Your task to perform on an android device: Do I have any events today? Image 0: 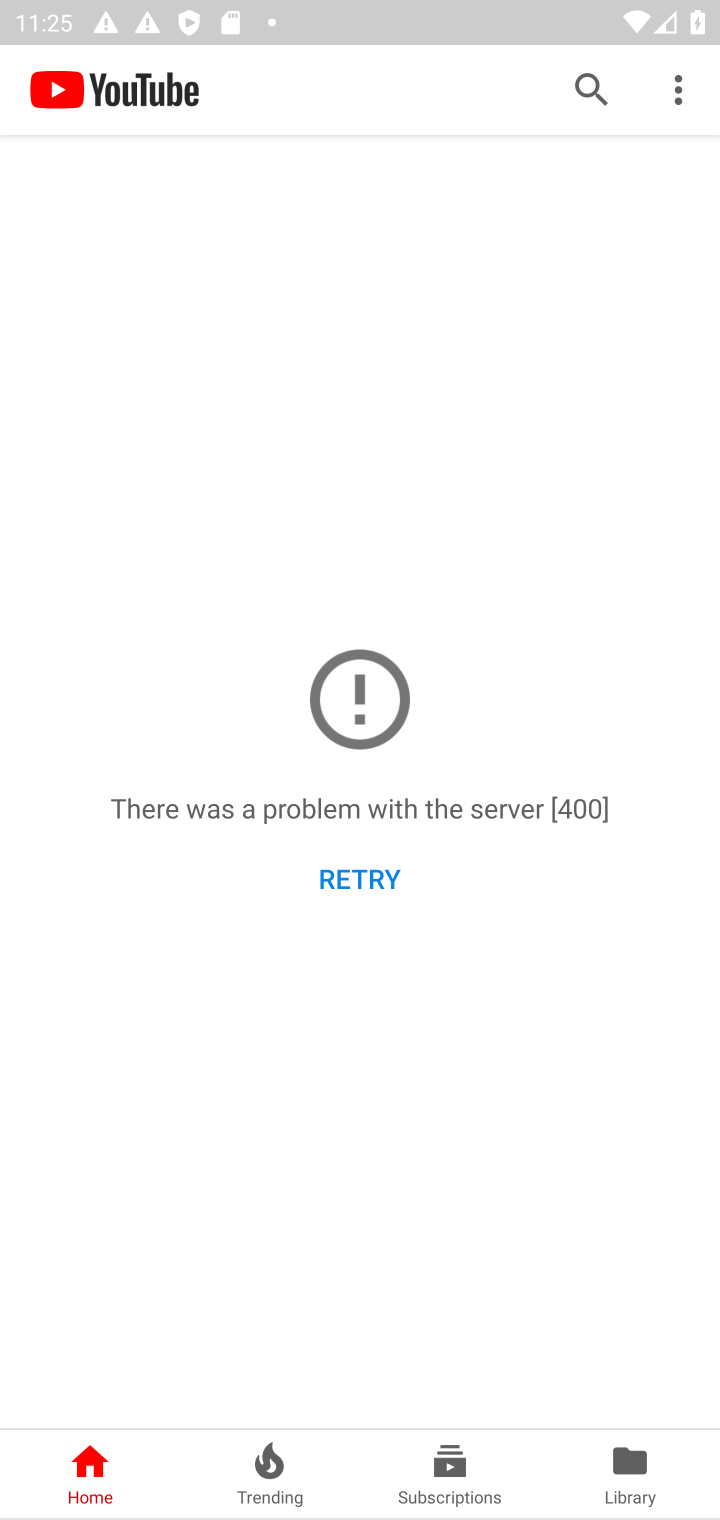
Step 0: press home button
Your task to perform on an android device: Do I have any events today? Image 1: 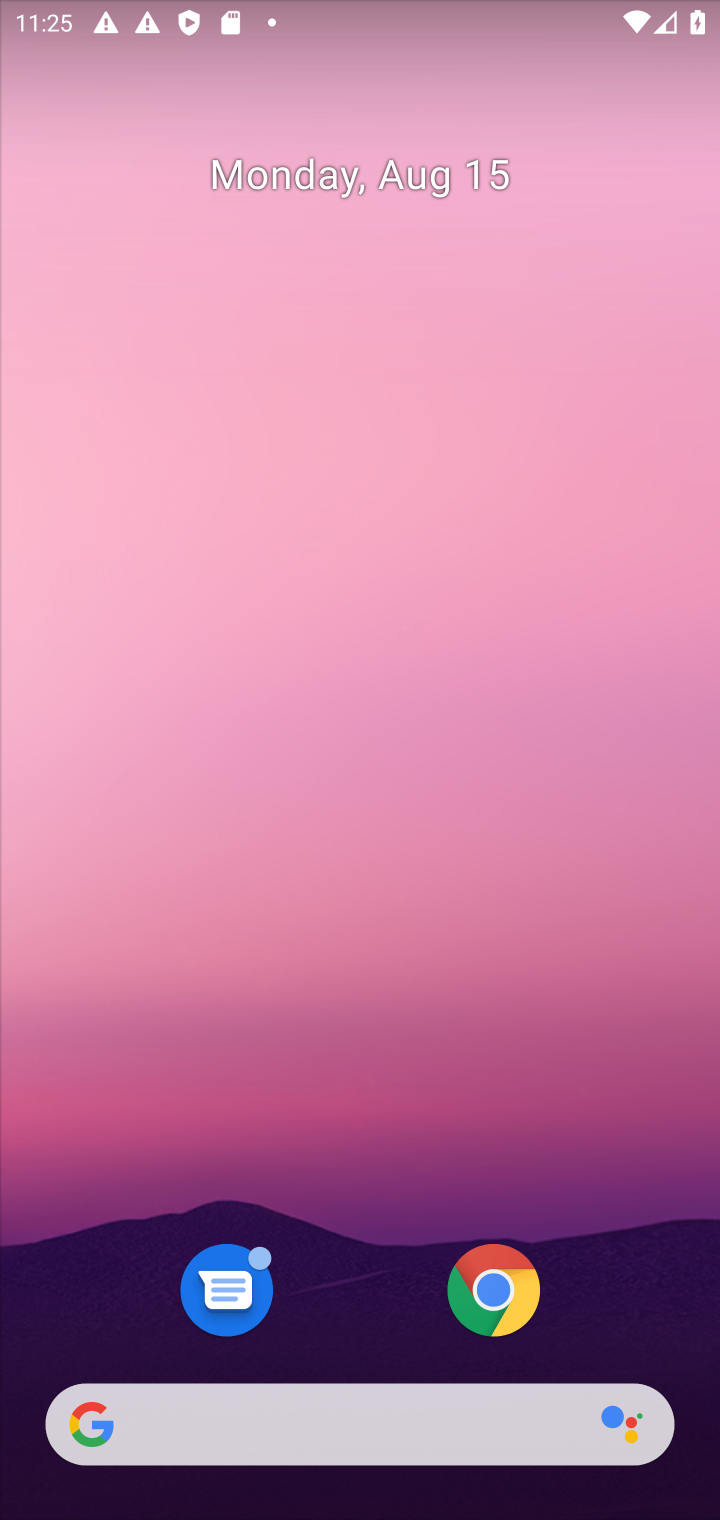
Step 1: drag from (299, 703) to (537, 133)
Your task to perform on an android device: Do I have any events today? Image 2: 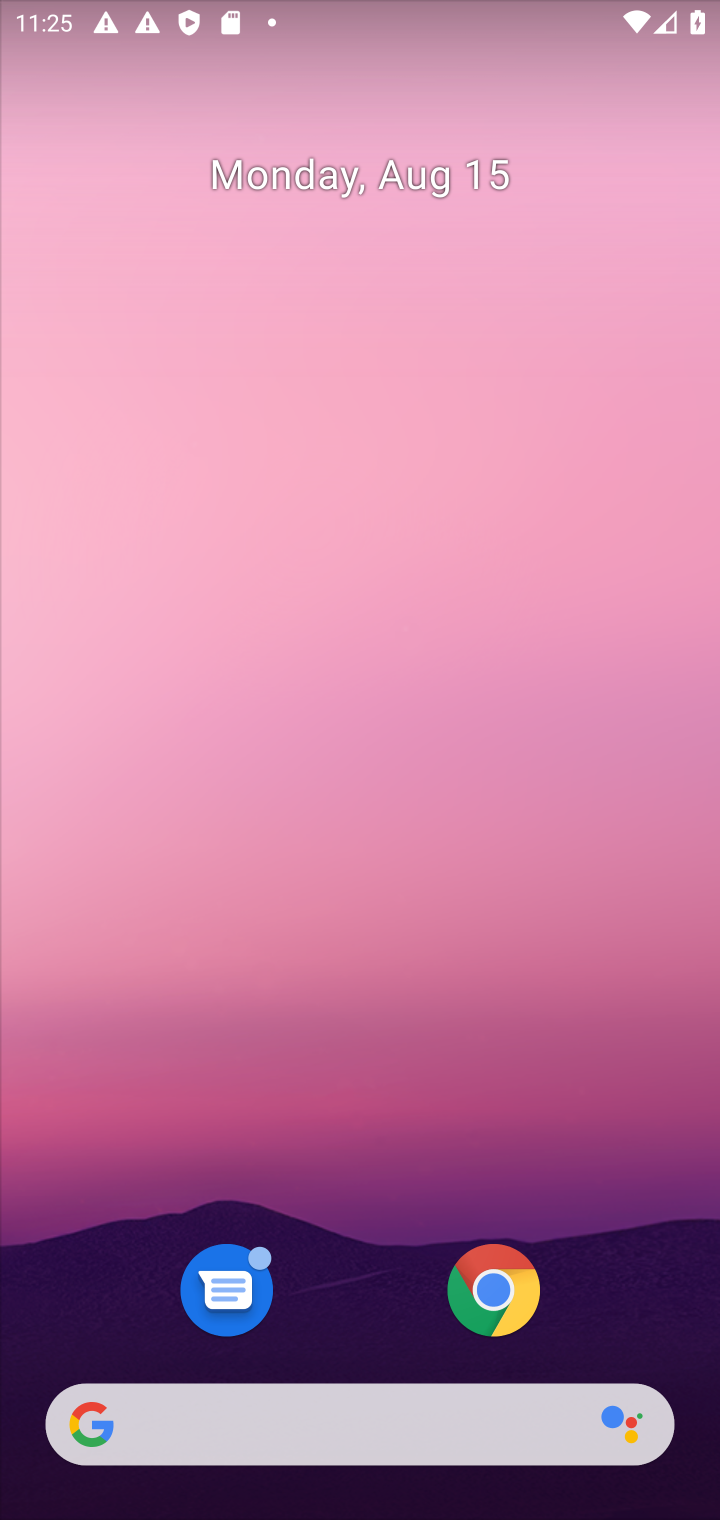
Step 2: drag from (2, 1494) to (406, 326)
Your task to perform on an android device: Do I have any events today? Image 3: 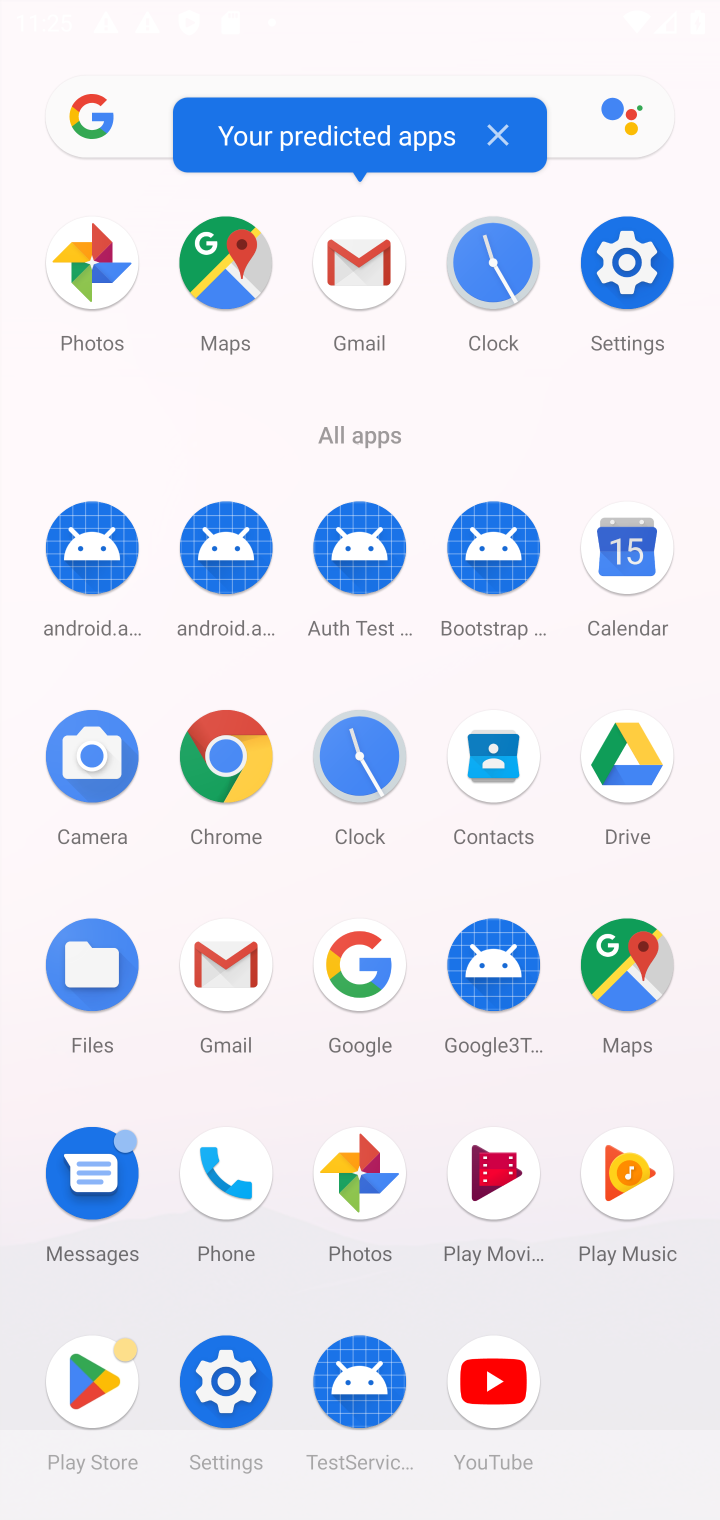
Step 3: click (635, 569)
Your task to perform on an android device: Do I have any events today? Image 4: 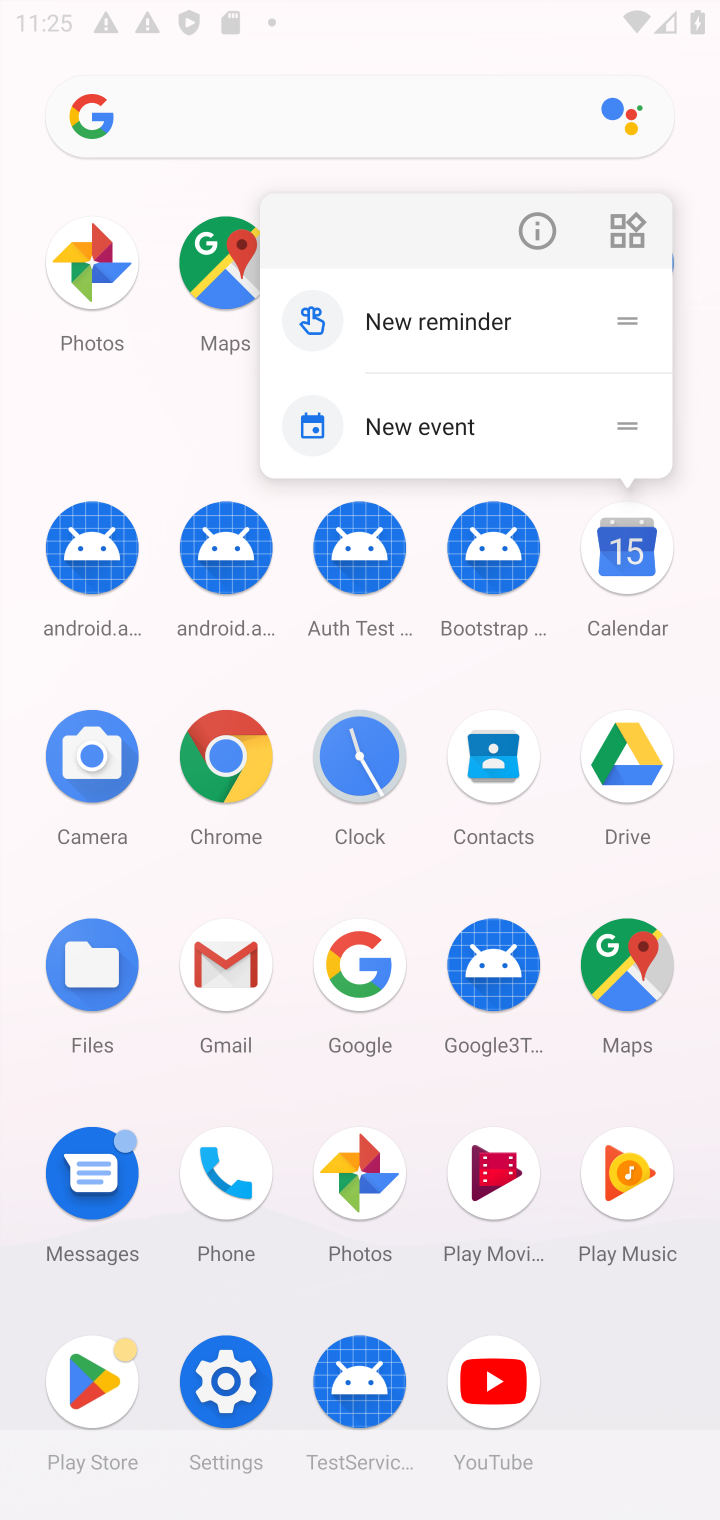
Step 4: click (615, 566)
Your task to perform on an android device: Do I have any events today? Image 5: 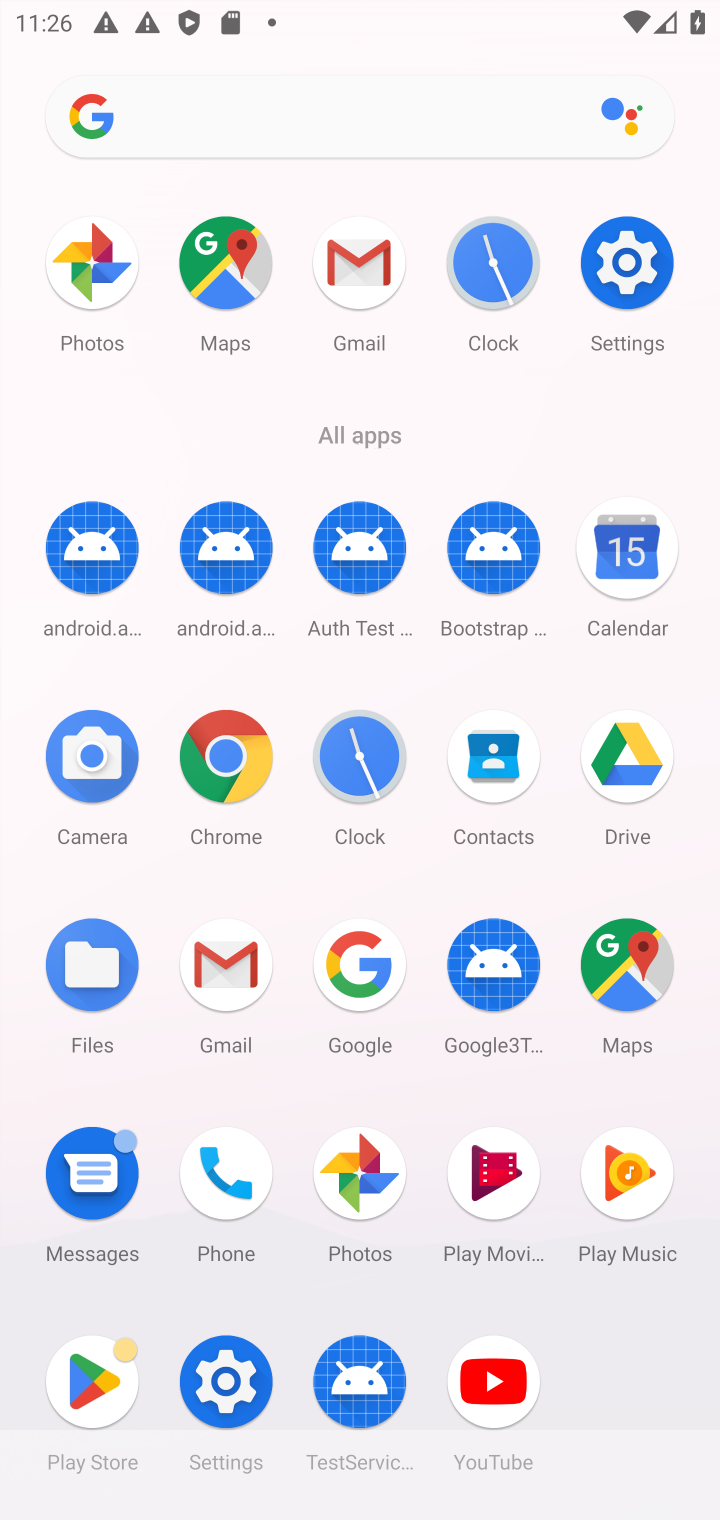
Step 5: click (627, 545)
Your task to perform on an android device: Do I have any events today? Image 6: 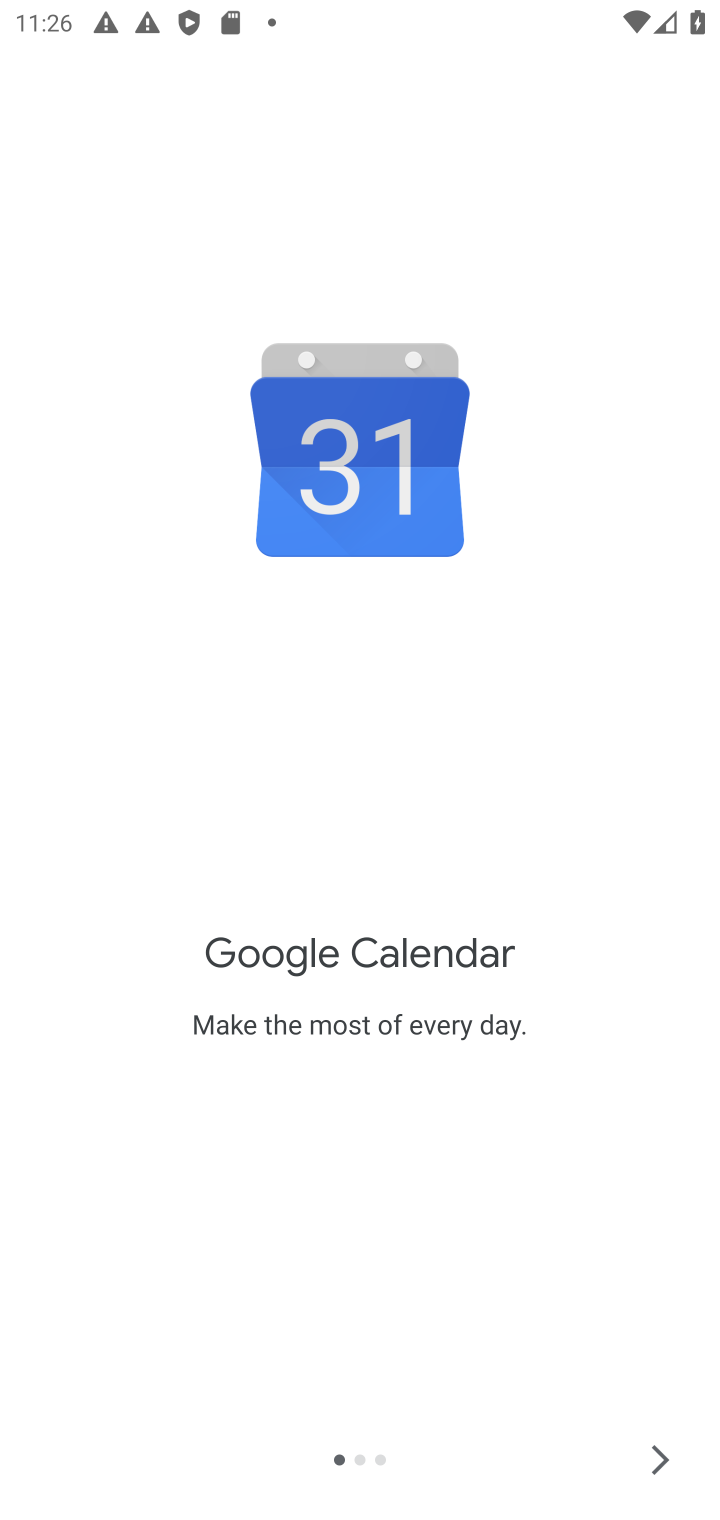
Step 6: click (661, 1457)
Your task to perform on an android device: Do I have any events today? Image 7: 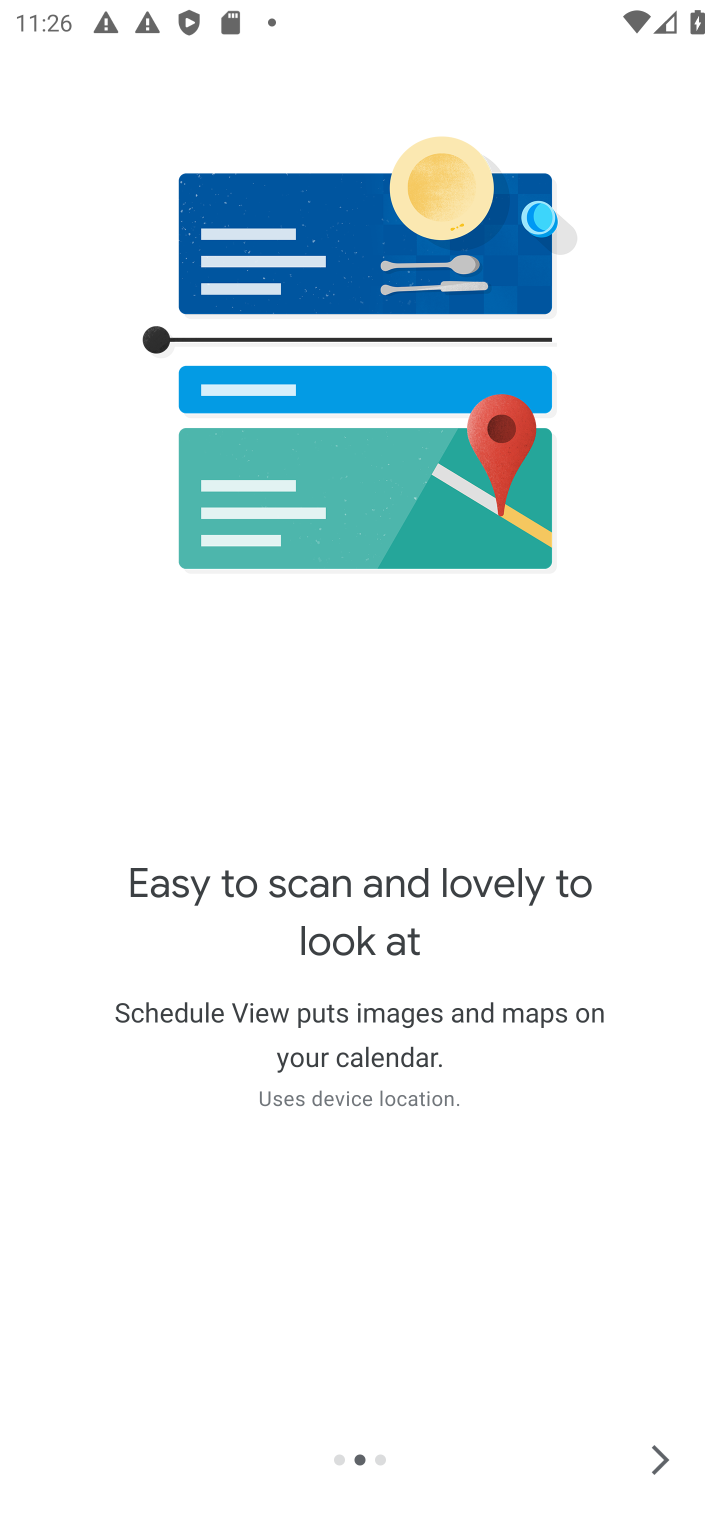
Step 7: click (671, 1460)
Your task to perform on an android device: Do I have any events today? Image 8: 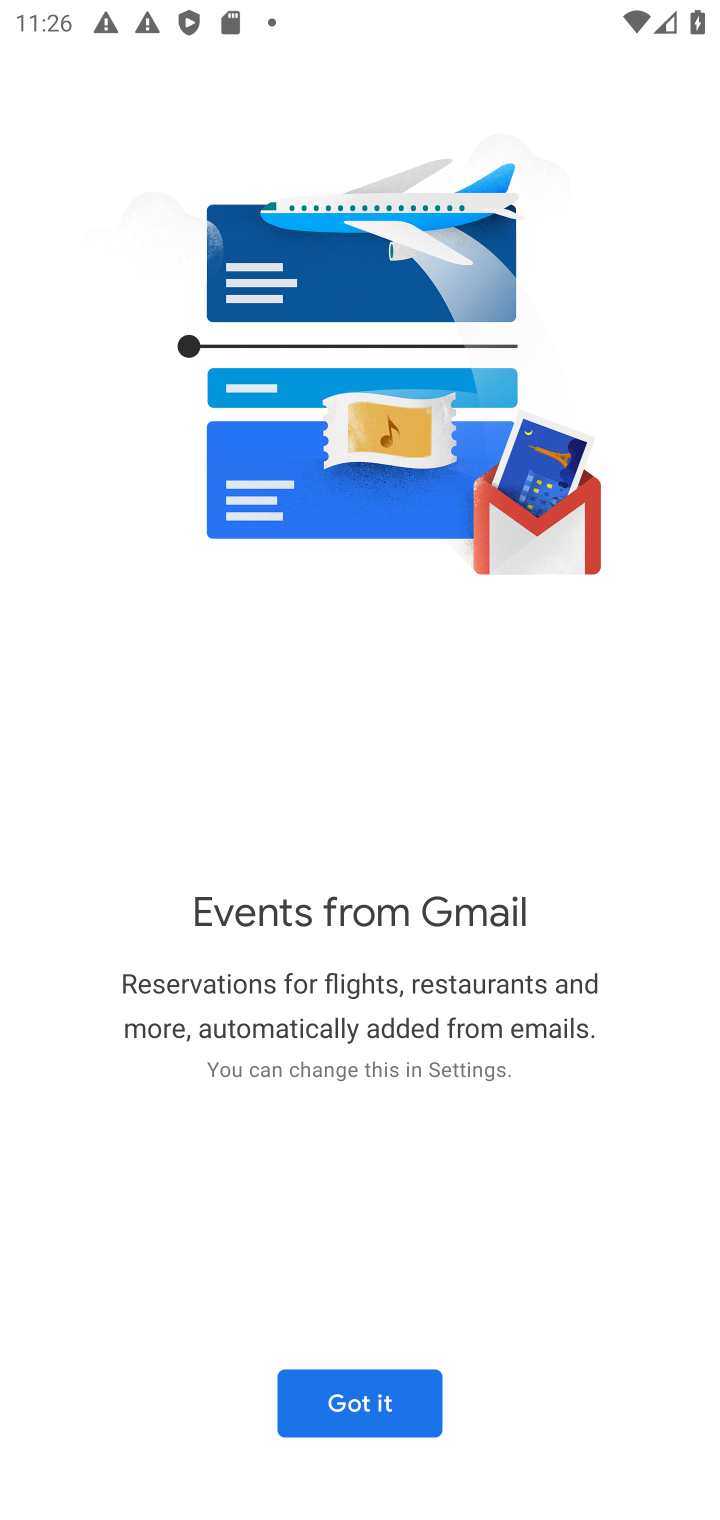
Step 8: click (391, 1408)
Your task to perform on an android device: Do I have any events today? Image 9: 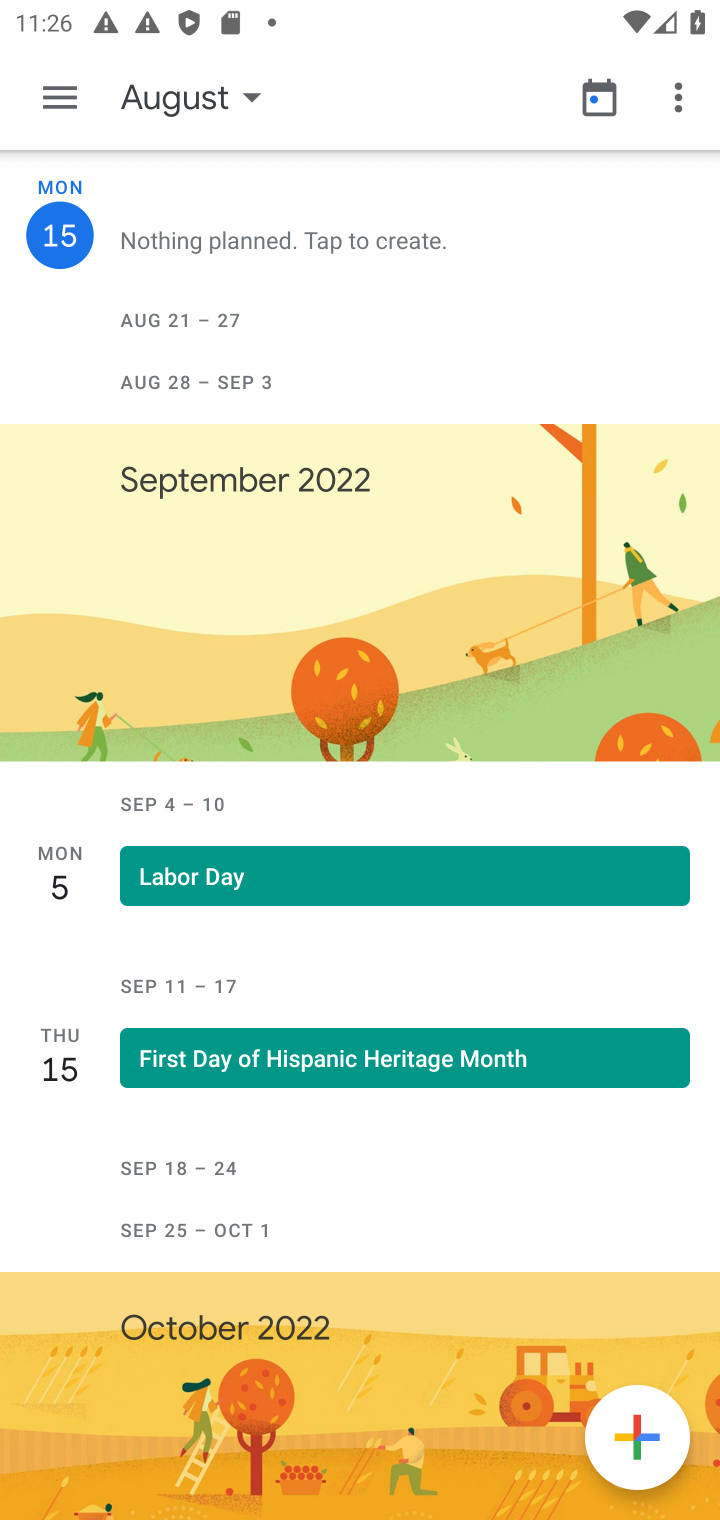
Step 9: click (218, 105)
Your task to perform on an android device: Do I have any events today? Image 10: 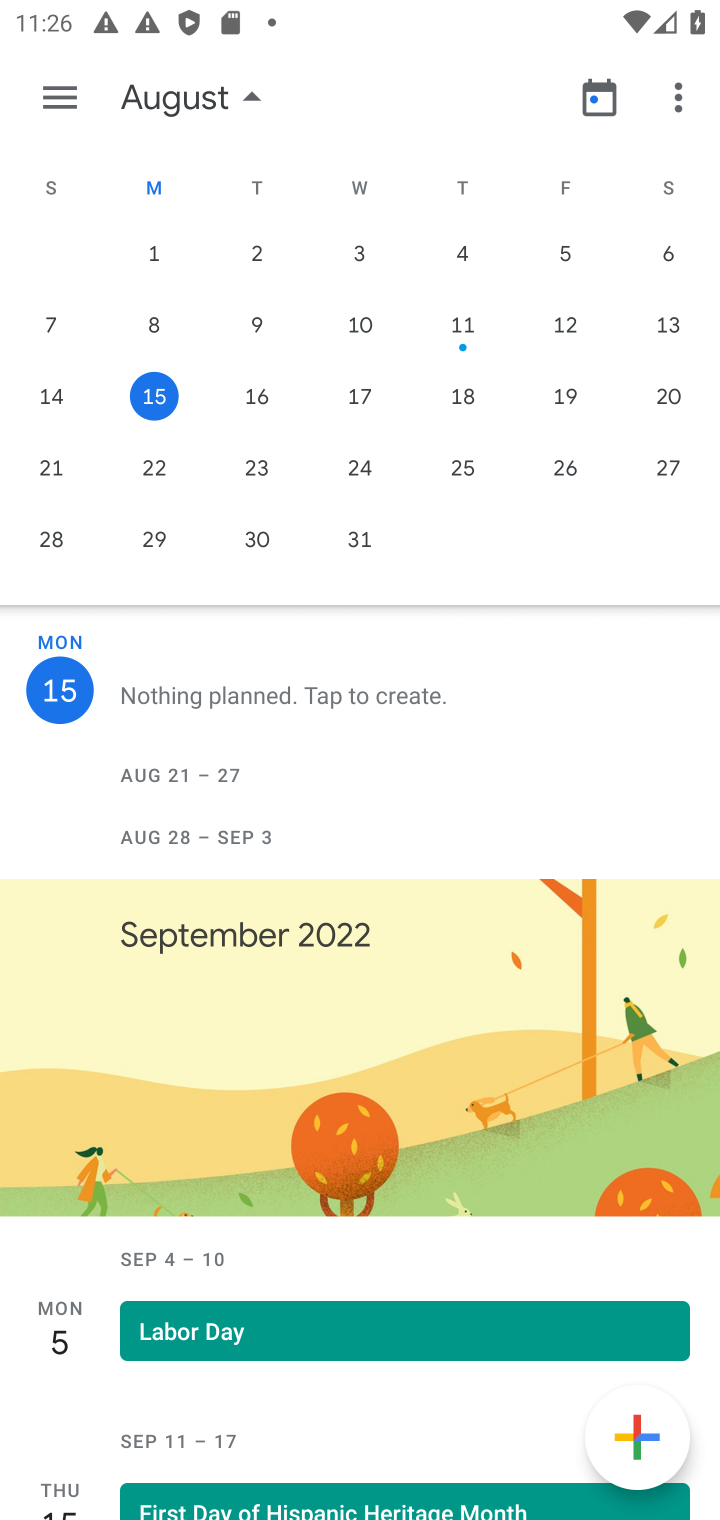
Step 10: task complete